Your task to perform on an android device: Go to sound settings Image 0: 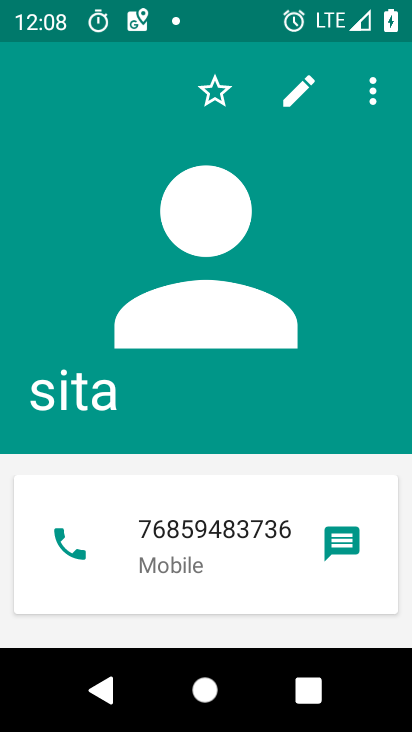
Step 0: press home button
Your task to perform on an android device: Go to sound settings Image 1: 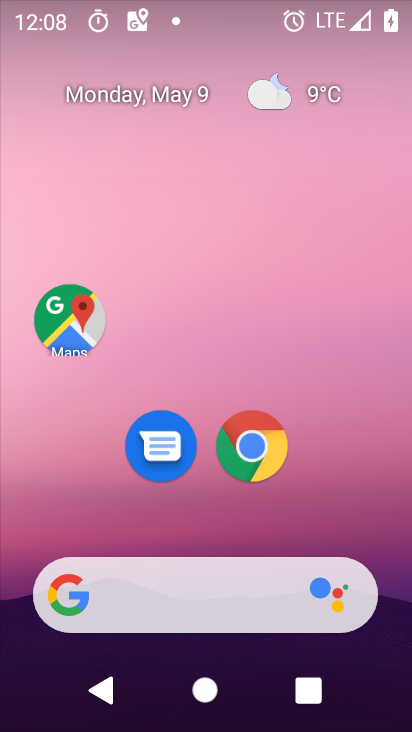
Step 1: drag from (381, 535) to (376, 0)
Your task to perform on an android device: Go to sound settings Image 2: 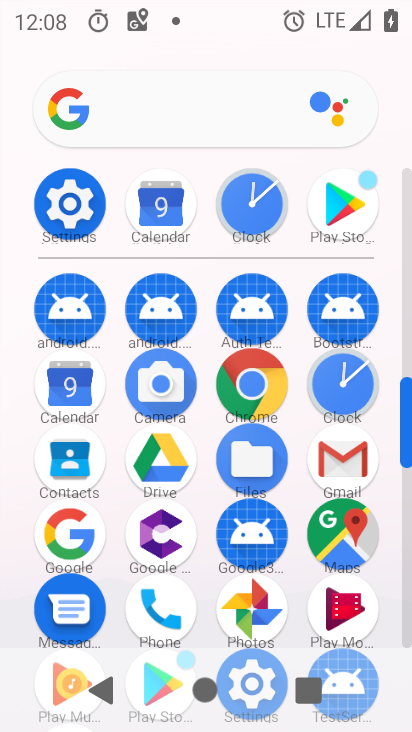
Step 2: click (66, 218)
Your task to perform on an android device: Go to sound settings Image 3: 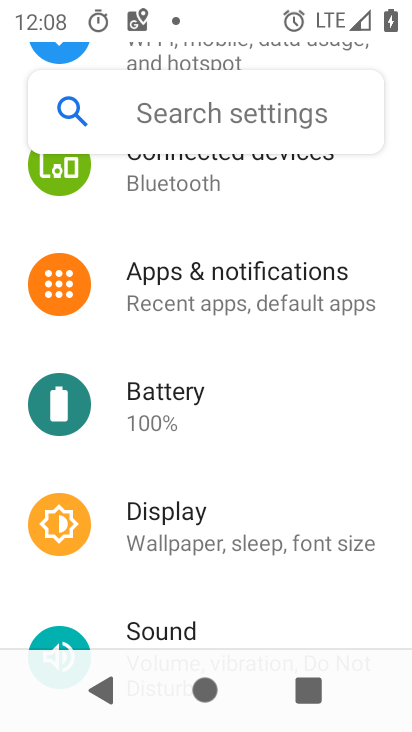
Step 3: click (164, 632)
Your task to perform on an android device: Go to sound settings Image 4: 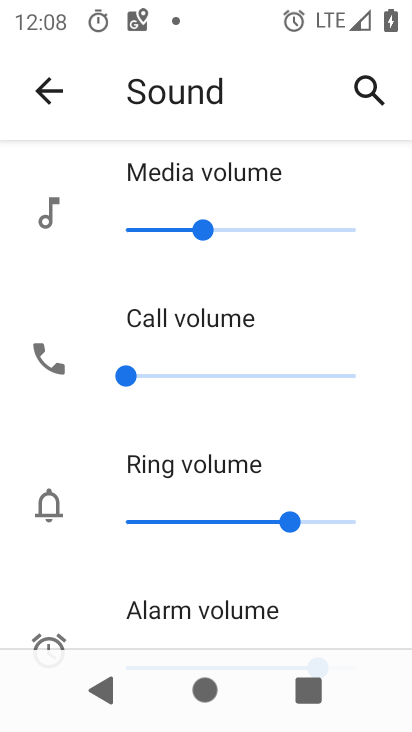
Step 4: task complete